Your task to perform on an android device: What is the recent news? Image 0: 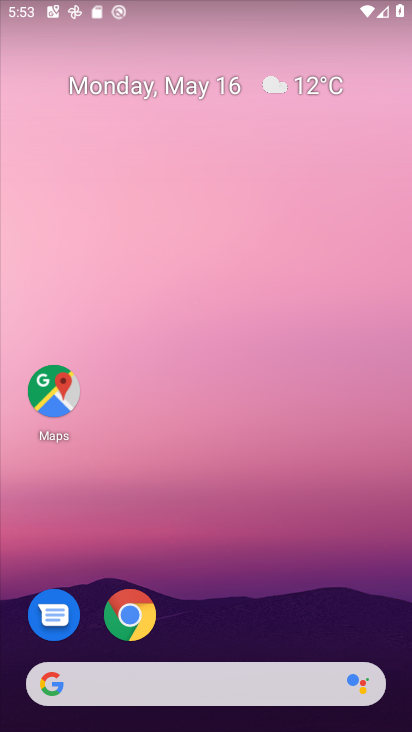
Step 0: drag from (224, 617) to (252, 139)
Your task to perform on an android device: What is the recent news? Image 1: 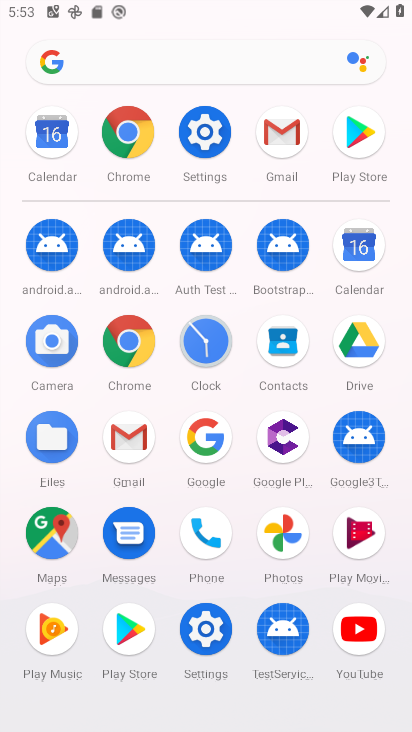
Step 1: drag from (236, 615) to (243, 370)
Your task to perform on an android device: What is the recent news? Image 2: 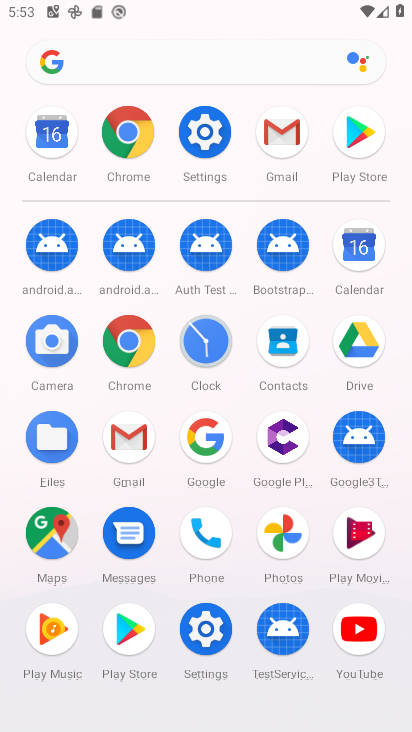
Step 2: click (223, 465)
Your task to perform on an android device: What is the recent news? Image 3: 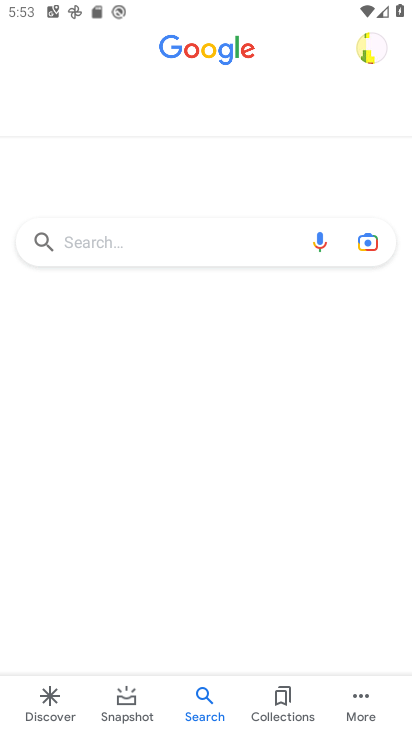
Step 3: click (166, 245)
Your task to perform on an android device: What is the recent news? Image 4: 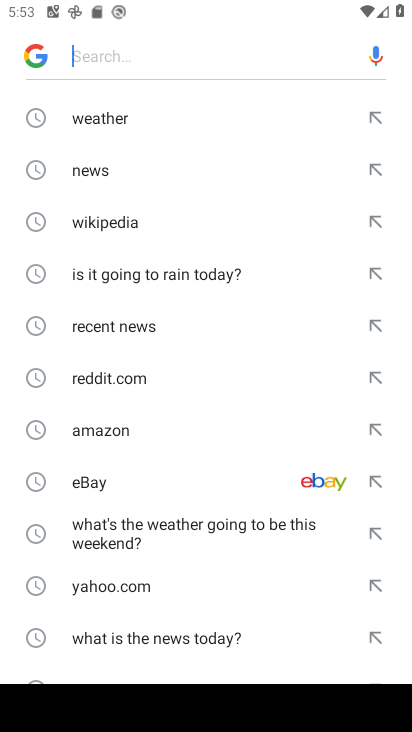
Step 4: click (129, 329)
Your task to perform on an android device: What is the recent news? Image 5: 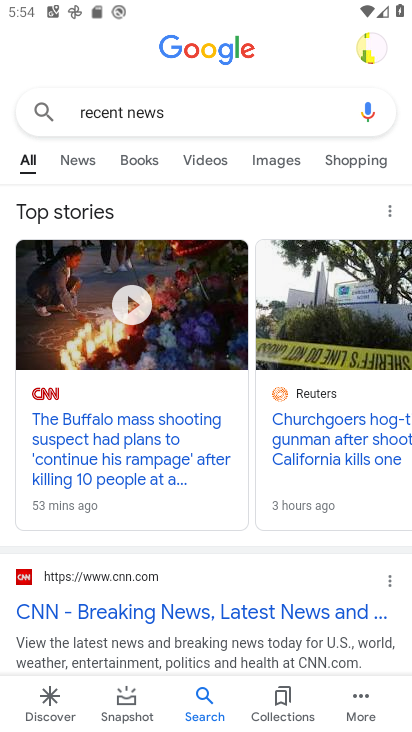
Step 5: task complete